Your task to perform on an android device: empty trash in the gmail app Image 0: 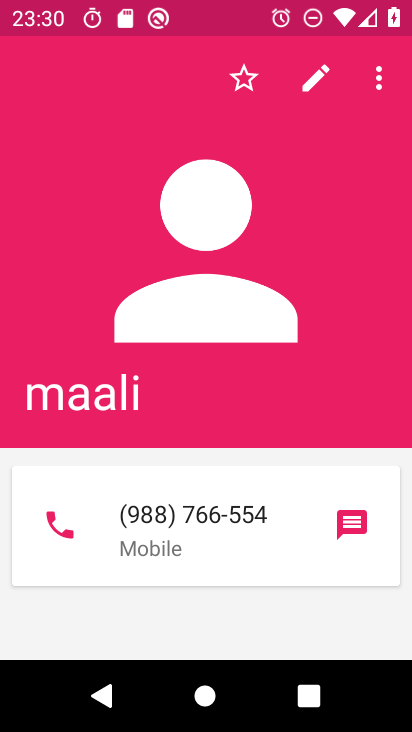
Step 0: press home button
Your task to perform on an android device: empty trash in the gmail app Image 1: 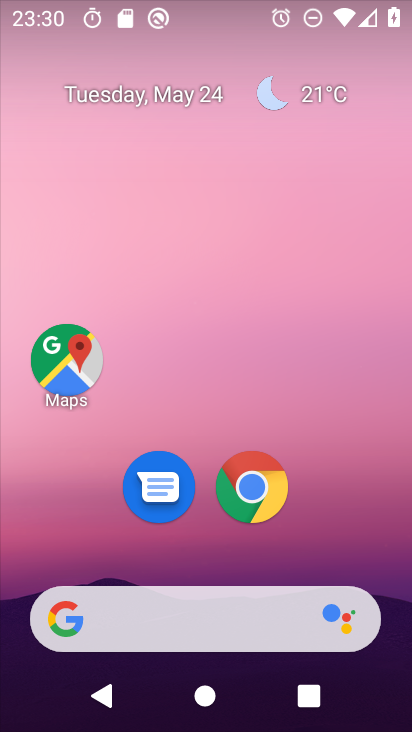
Step 1: drag from (372, 557) to (397, 20)
Your task to perform on an android device: empty trash in the gmail app Image 2: 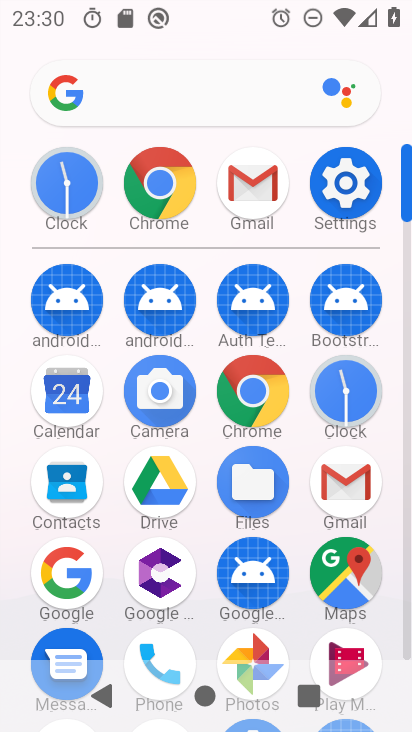
Step 2: click (250, 198)
Your task to perform on an android device: empty trash in the gmail app Image 3: 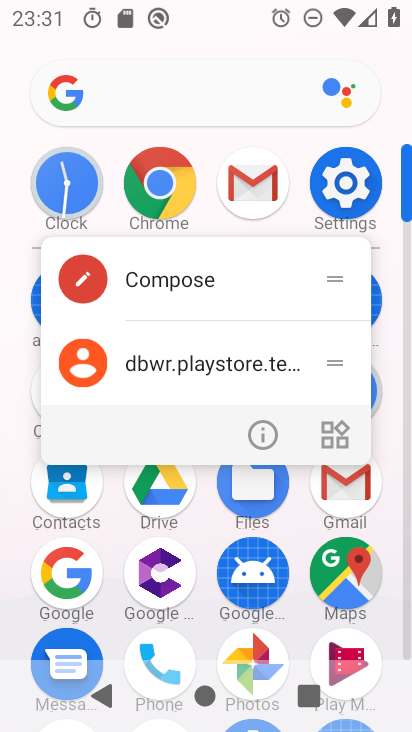
Step 3: click (259, 187)
Your task to perform on an android device: empty trash in the gmail app Image 4: 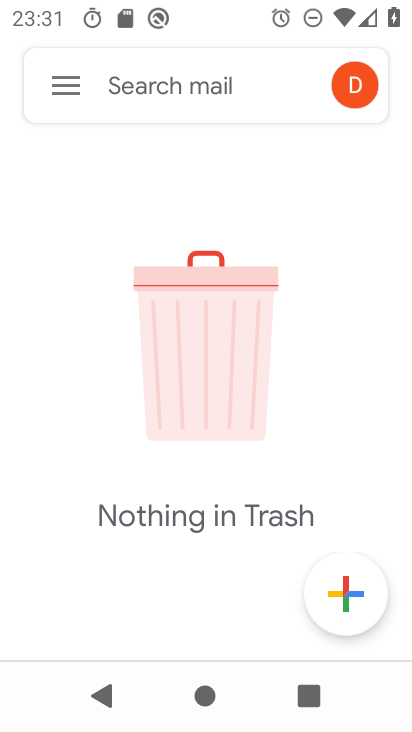
Step 4: task complete